Your task to perform on an android device: allow notifications from all sites in the chrome app Image 0: 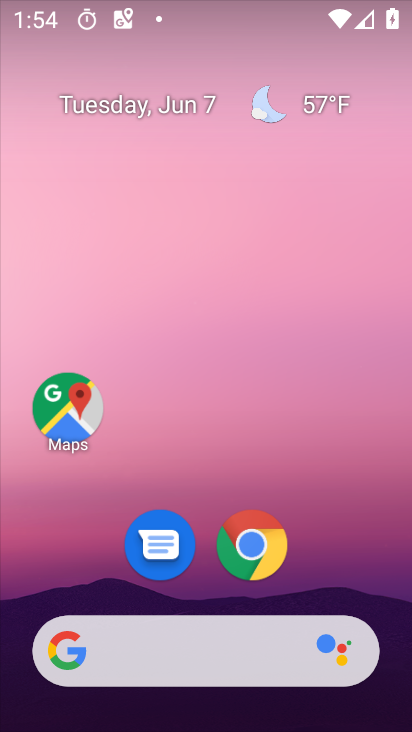
Step 0: click (257, 555)
Your task to perform on an android device: allow notifications from all sites in the chrome app Image 1: 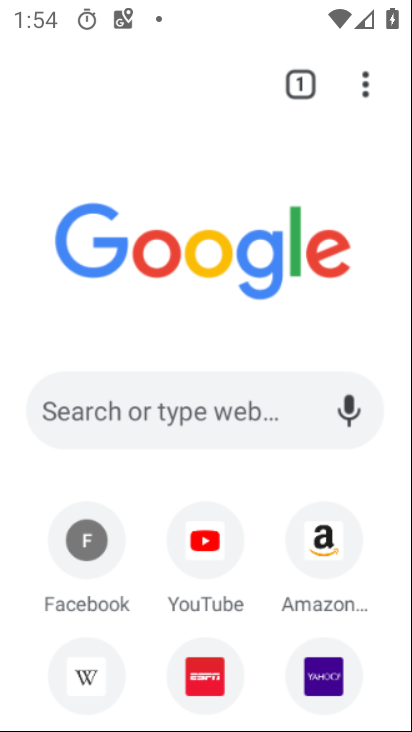
Step 1: click (352, 74)
Your task to perform on an android device: allow notifications from all sites in the chrome app Image 2: 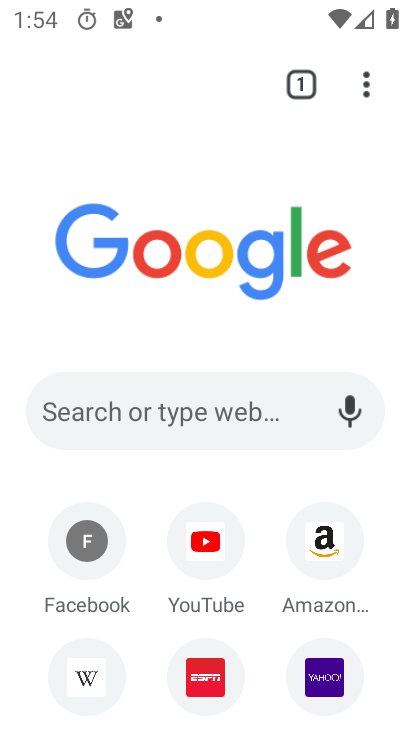
Step 2: click (368, 94)
Your task to perform on an android device: allow notifications from all sites in the chrome app Image 3: 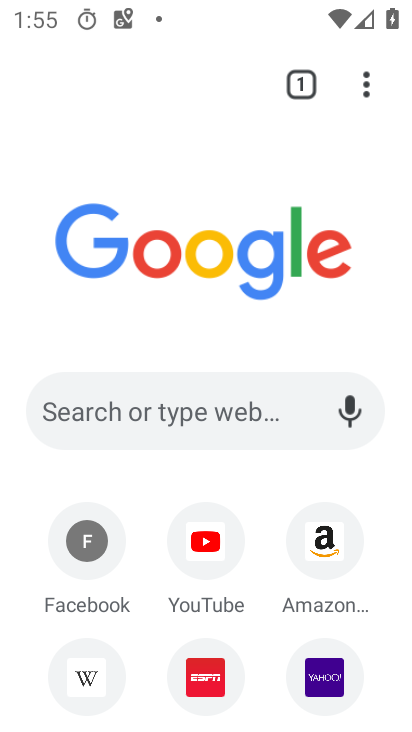
Step 3: click (368, 91)
Your task to perform on an android device: allow notifications from all sites in the chrome app Image 4: 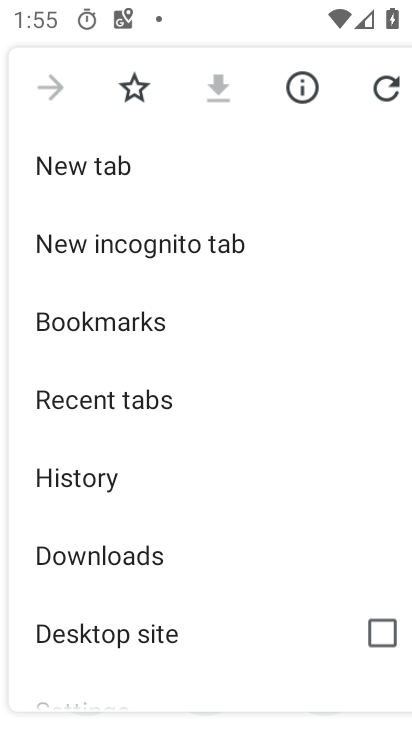
Step 4: drag from (192, 568) to (207, 31)
Your task to perform on an android device: allow notifications from all sites in the chrome app Image 5: 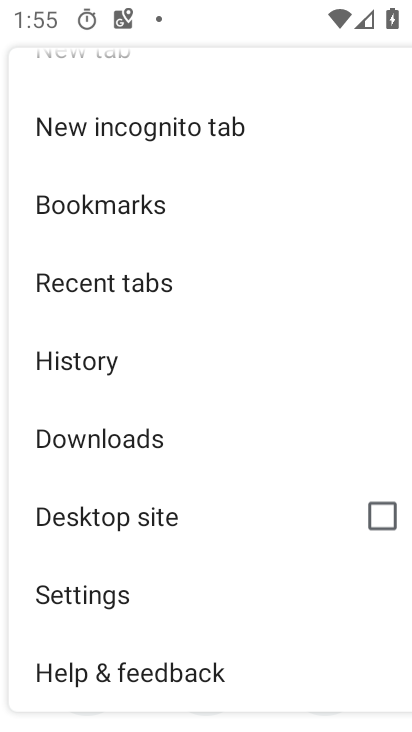
Step 5: click (168, 618)
Your task to perform on an android device: allow notifications from all sites in the chrome app Image 6: 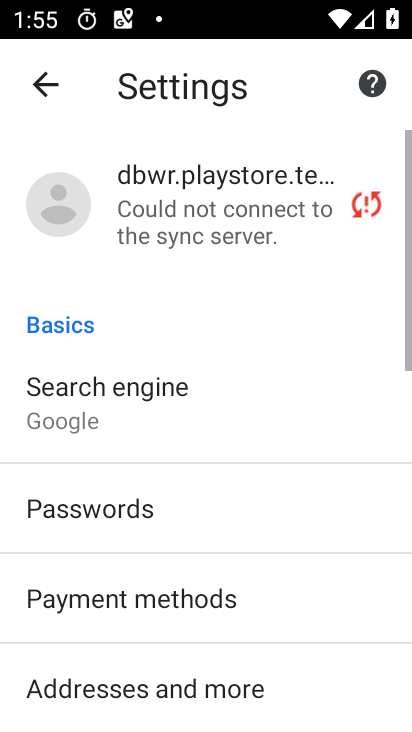
Step 6: drag from (280, 453) to (286, 26)
Your task to perform on an android device: allow notifications from all sites in the chrome app Image 7: 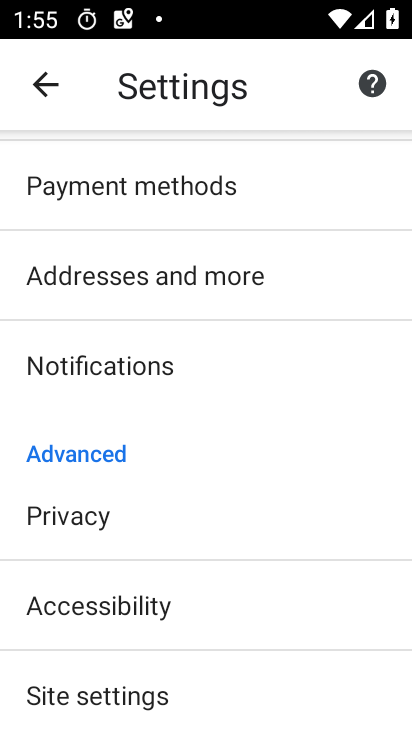
Step 7: click (208, 680)
Your task to perform on an android device: allow notifications from all sites in the chrome app Image 8: 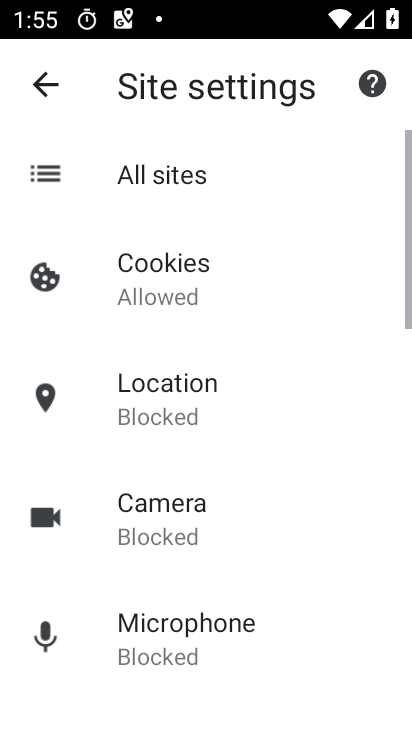
Step 8: click (138, 170)
Your task to perform on an android device: allow notifications from all sites in the chrome app Image 9: 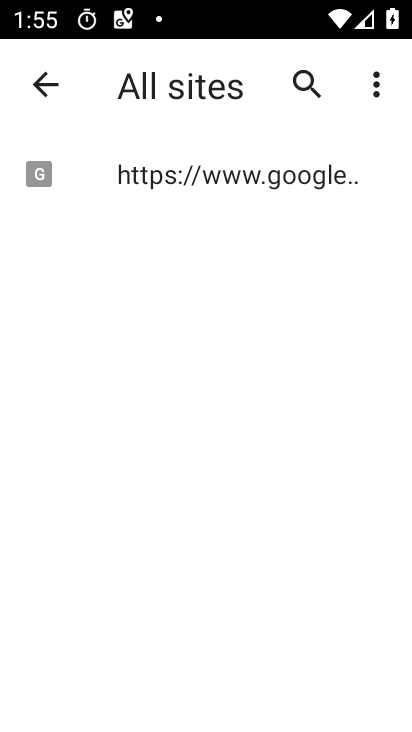
Step 9: click (161, 165)
Your task to perform on an android device: allow notifications from all sites in the chrome app Image 10: 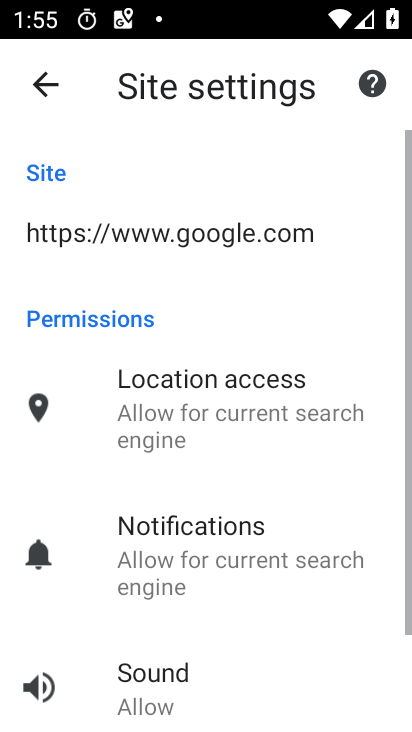
Step 10: click (265, 505)
Your task to perform on an android device: allow notifications from all sites in the chrome app Image 11: 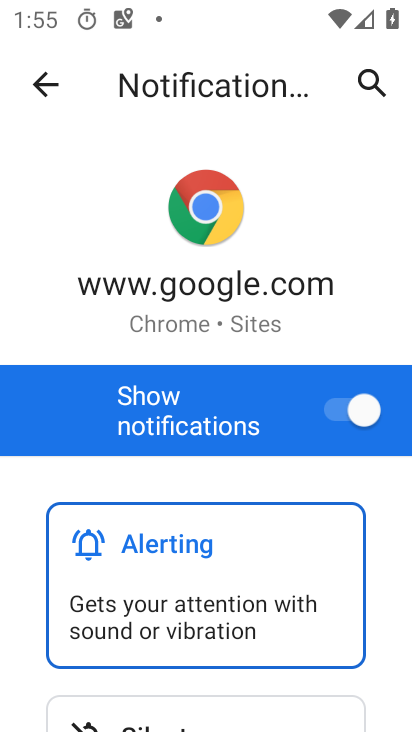
Step 11: task complete